Your task to perform on an android device: change the clock display to digital Image 0: 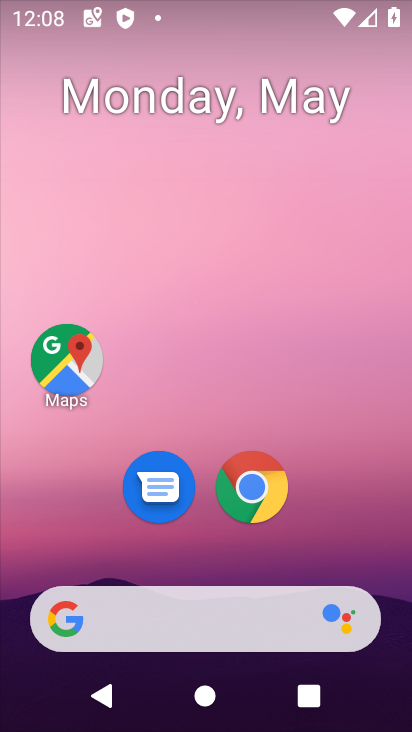
Step 0: drag from (305, 431) to (331, 35)
Your task to perform on an android device: change the clock display to digital Image 1: 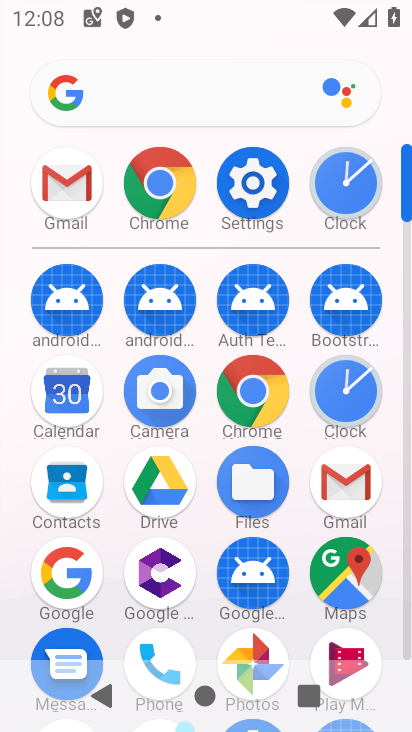
Step 1: click (337, 392)
Your task to perform on an android device: change the clock display to digital Image 2: 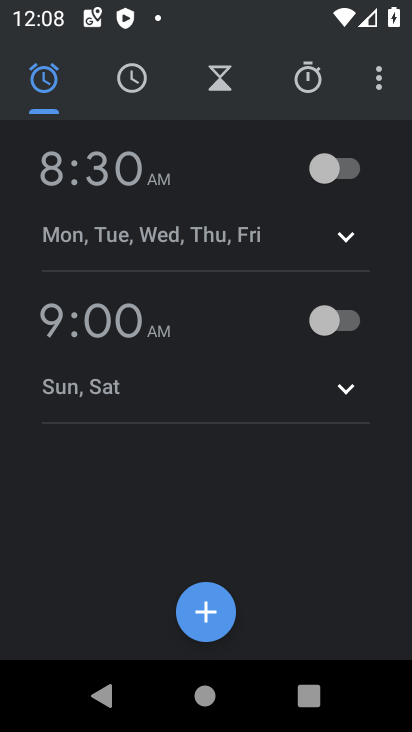
Step 2: click (374, 83)
Your task to perform on an android device: change the clock display to digital Image 3: 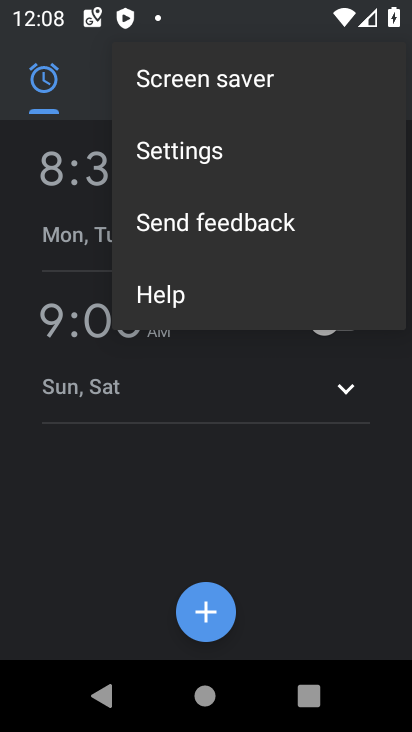
Step 3: click (159, 159)
Your task to perform on an android device: change the clock display to digital Image 4: 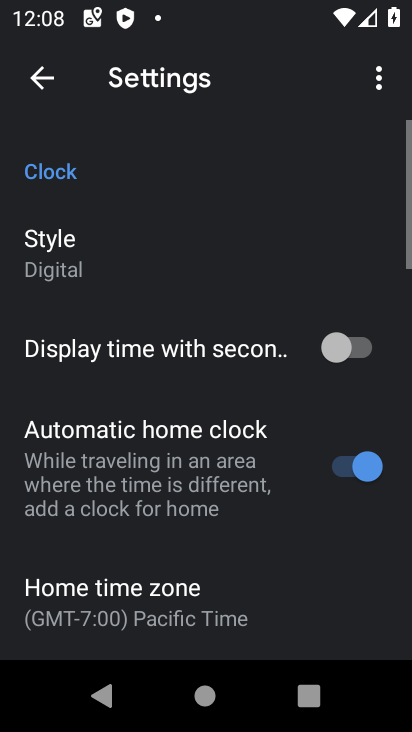
Step 4: click (39, 270)
Your task to perform on an android device: change the clock display to digital Image 5: 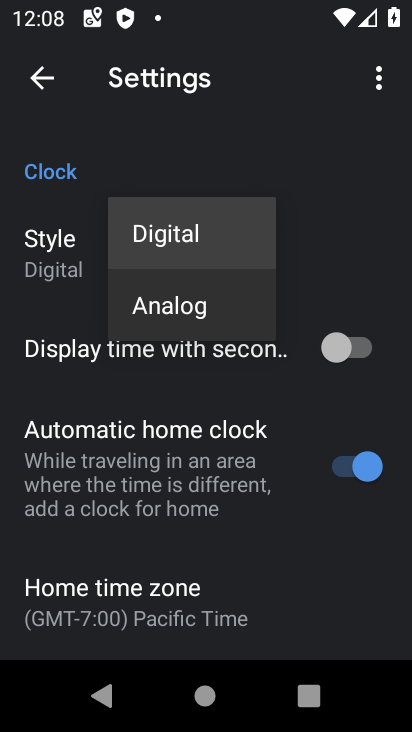
Step 5: click (229, 232)
Your task to perform on an android device: change the clock display to digital Image 6: 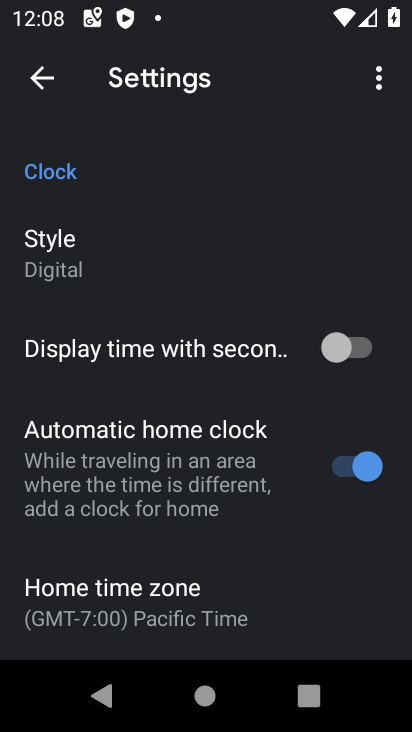
Step 6: task complete